Your task to perform on an android device: delete a single message in the gmail app Image 0: 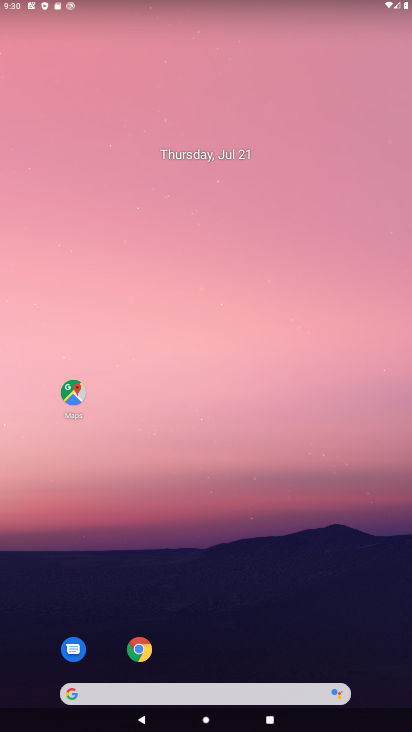
Step 0: drag from (239, 620) to (221, 80)
Your task to perform on an android device: delete a single message in the gmail app Image 1: 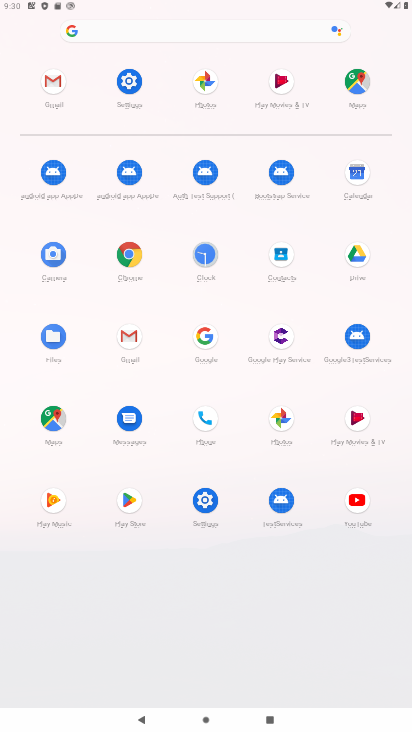
Step 1: click (123, 339)
Your task to perform on an android device: delete a single message in the gmail app Image 2: 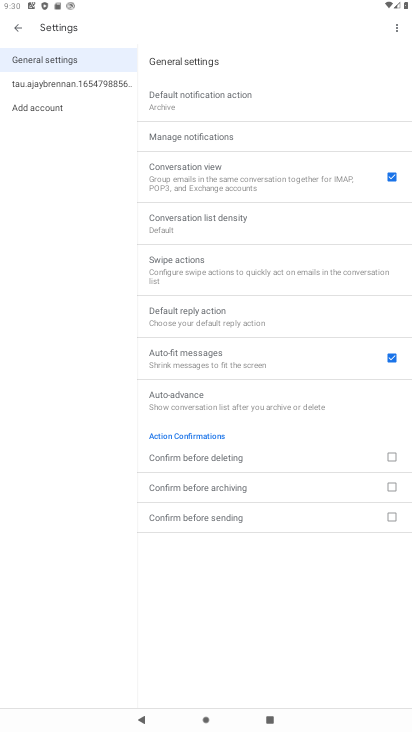
Step 2: click (16, 16)
Your task to perform on an android device: delete a single message in the gmail app Image 3: 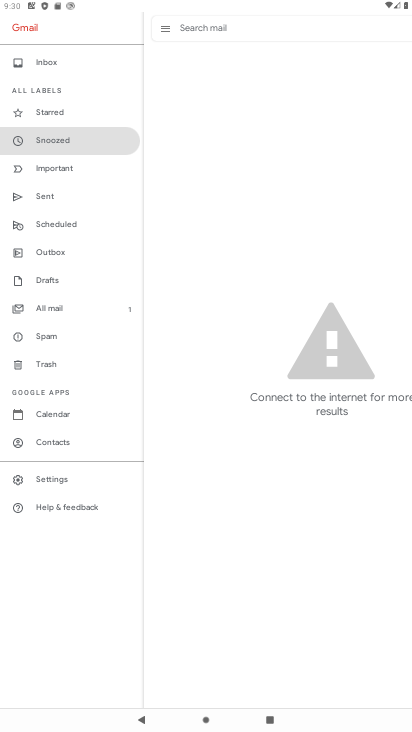
Step 3: click (52, 63)
Your task to perform on an android device: delete a single message in the gmail app Image 4: 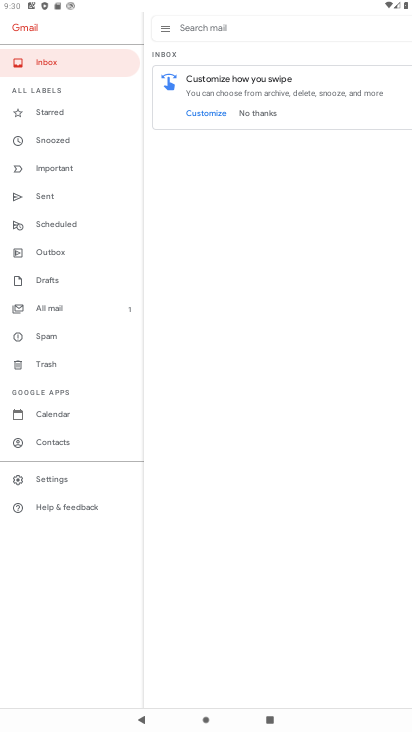
Step 4: task complete